Your task to perform on an android device: Is it going to rain tomorrow? Image 0: 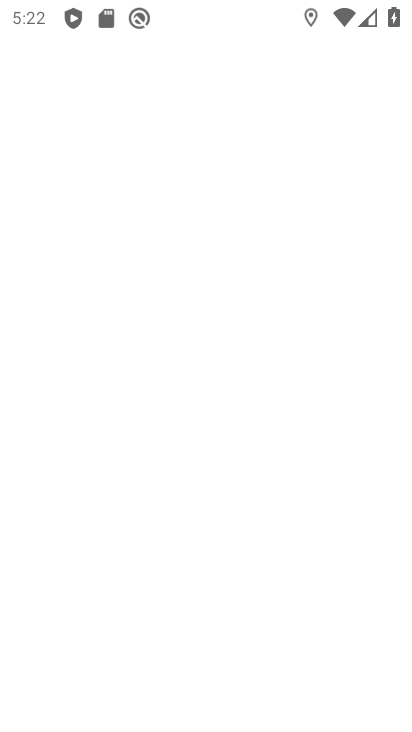
Step 0: click (275, 580)
Your task to perform on an android device: Is it going to rain tomorrow? Image 1: 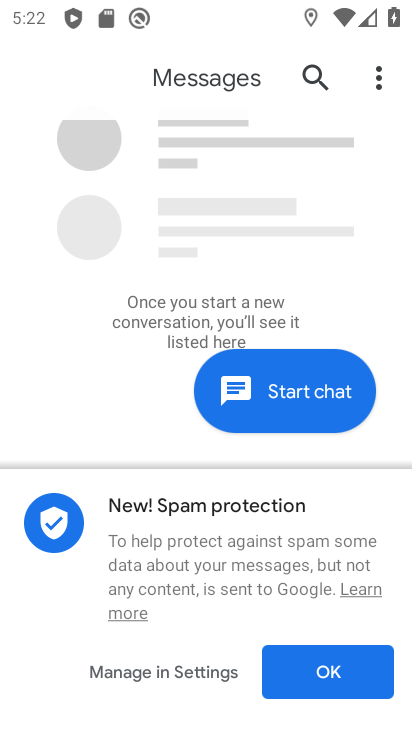
Step 1: click (381, 69)
Your task to perform on an android device: Is it going to rain tomorrow? Image 2: 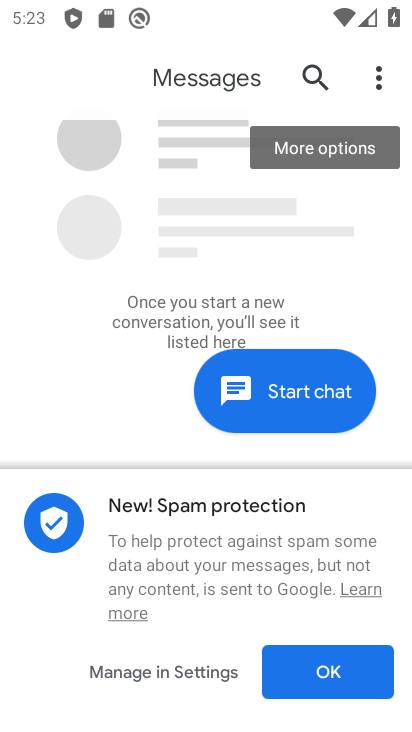
Step 2: press home button
Your task to perform on an android device: Is it going to rain tomorrow? Image 3: 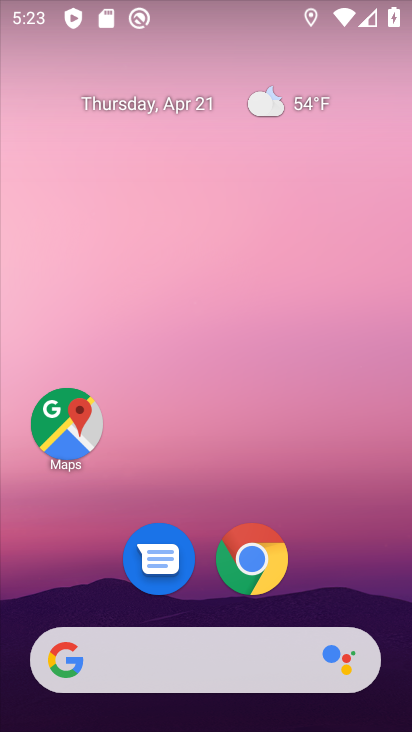
Step 3: click (286, 113)
Your task to perform on an android device: Is it going to rain tomorrow? Image 4: 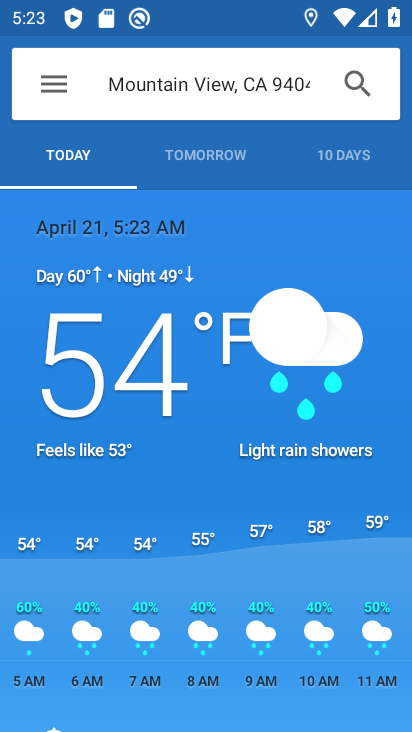
Step 4: click (211, 142)
Your task to perform on an android device: Is it going to rain tomorrow? Image 5: 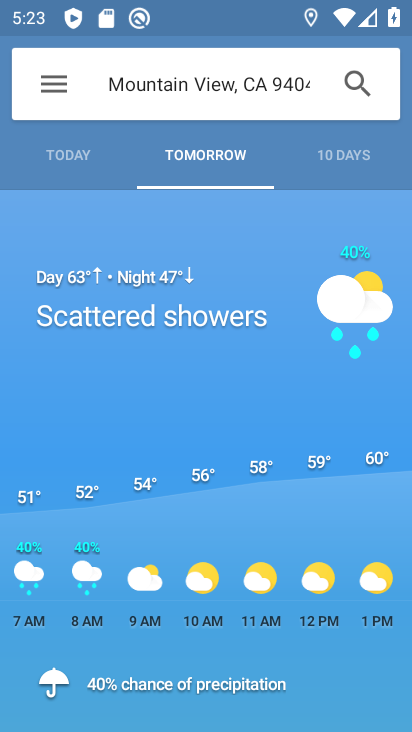
Step 5: task complete